Your task to perform on an android device: turn off airplane mode Image 0: 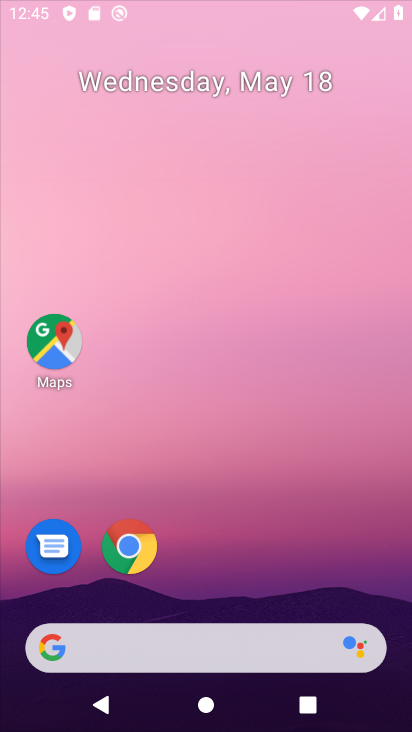
Step 0: drag from (252, 201) to (287, 152)
Your task to perform on an android device: turn off airplane mode Image 1: 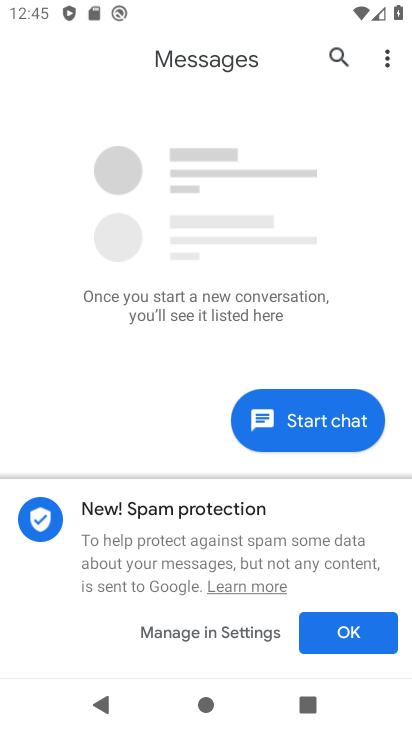
Step 1: press home button
Your task to perform on an android device: turn off airplane mode Image 2: 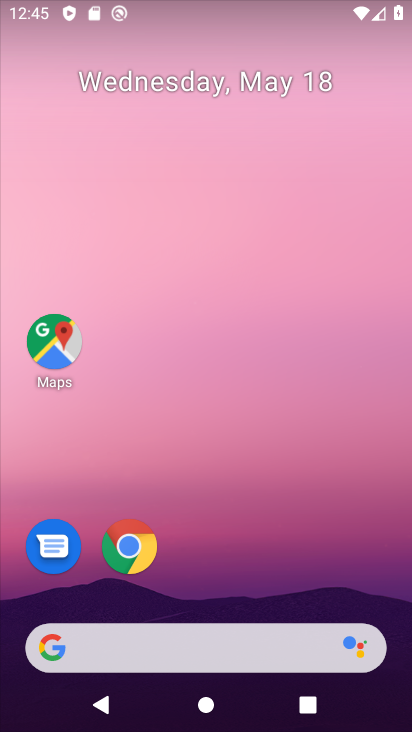
Step 2: drag from (159, 606) to (235, 224)
Your task to perform on an android device: turn off airplane mode Image 3: 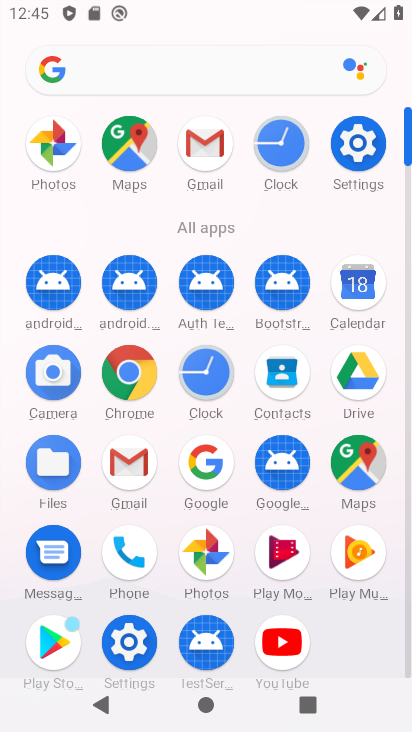
Step 3: click (132, 657)
Your task to perform on an android device: turn off airplane mode Image 4: 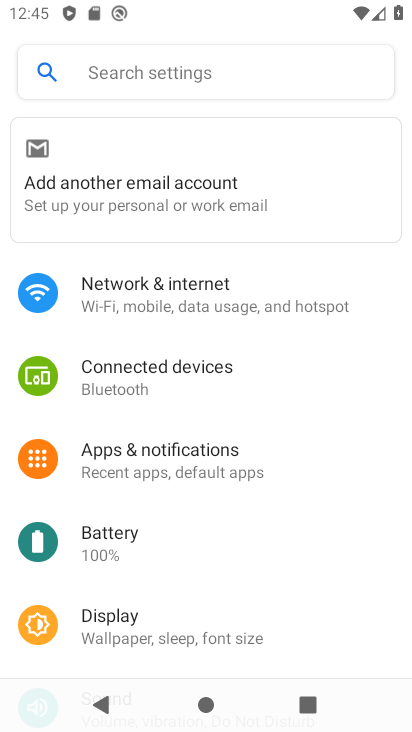
Step 4: click (192, 311)
Your task to perform on an android device: turn off airplane mode Image 5: 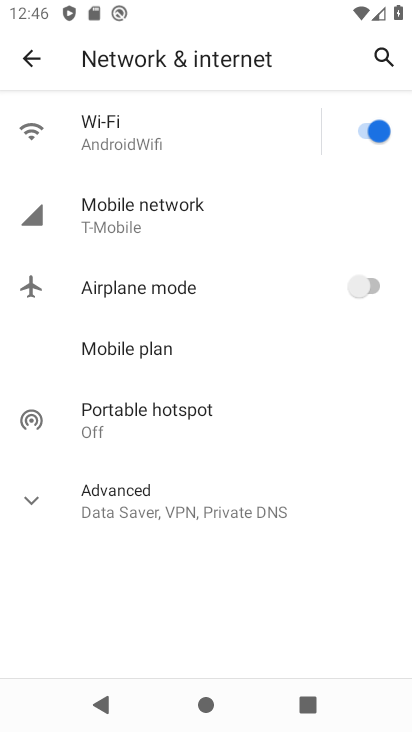
Step 5: task complete